Your task to perform on an android device: Is it going to rain this weekend? Image 0: 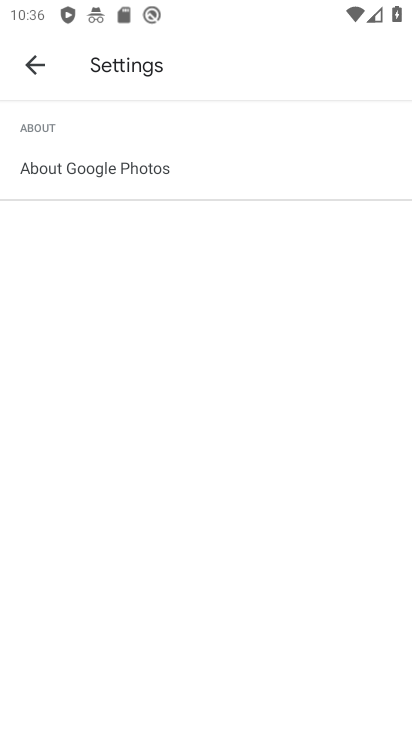
Step 0: press home button
Your task to perform on an android device: Is it going to rain this weekend? Image 1: 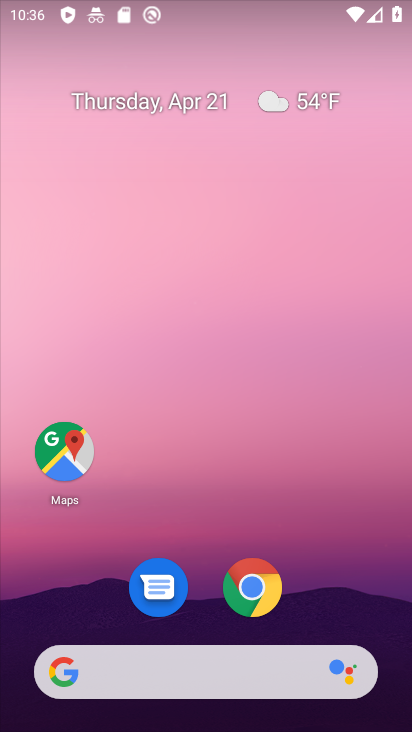
Step 1: click (285, 110)
Your task to perform on an android device: Is it going to rain this weekend? Image 2: 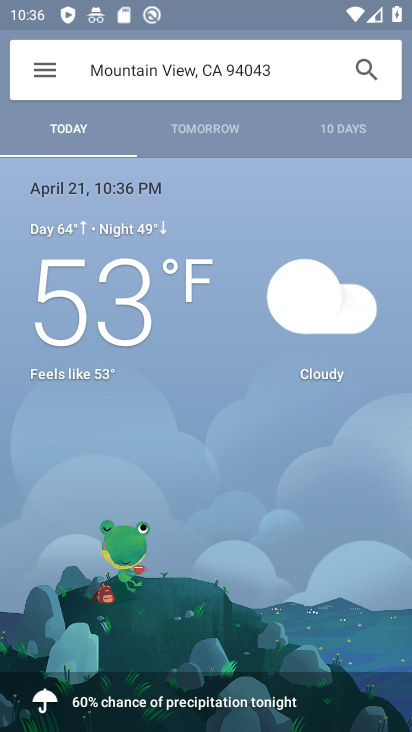
Step 2: click (340, 144)
Your task to perform on an android device: Is it going to rain this weekend? Image 3: 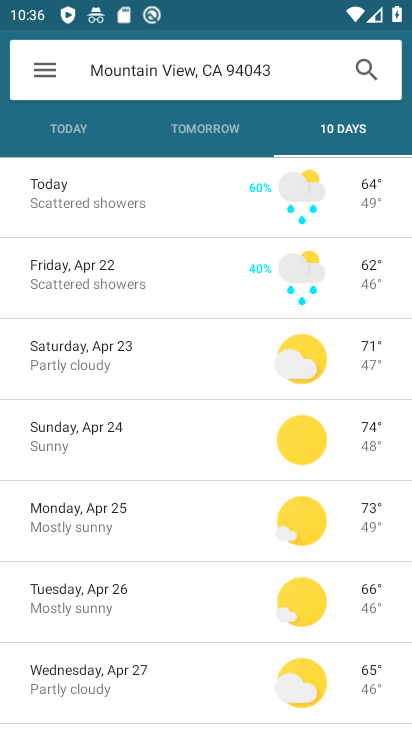
Step 3: task complete